Your task to perform on an android device: Go to ESPN.com Image 0: 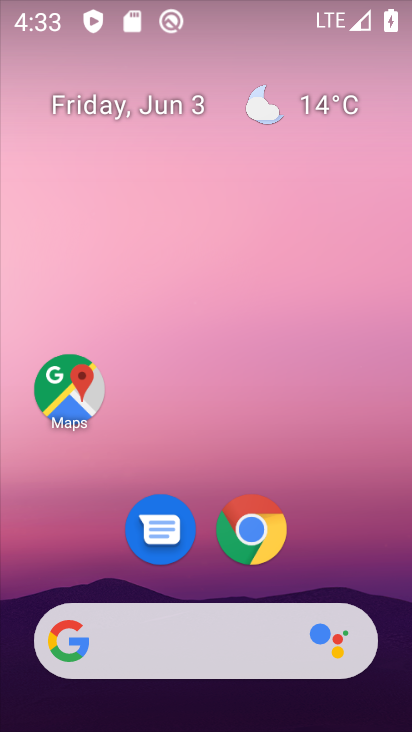
Step 0: press home button
Your task to perform on an android device: Go to ESPN.com Image 1: 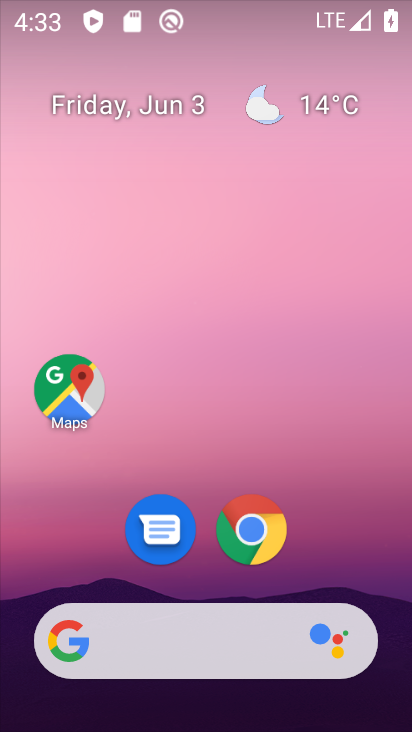
Step 1: click (249, 522)
Your task to perform on an android device: Go to ESPN.com Image 2: 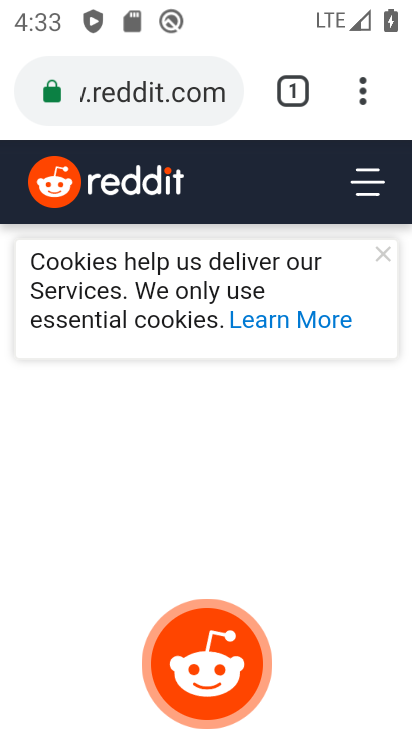
Step 2: click (292, 79)
Your task to perform on an android device: Go to ESPN.com Image 3: 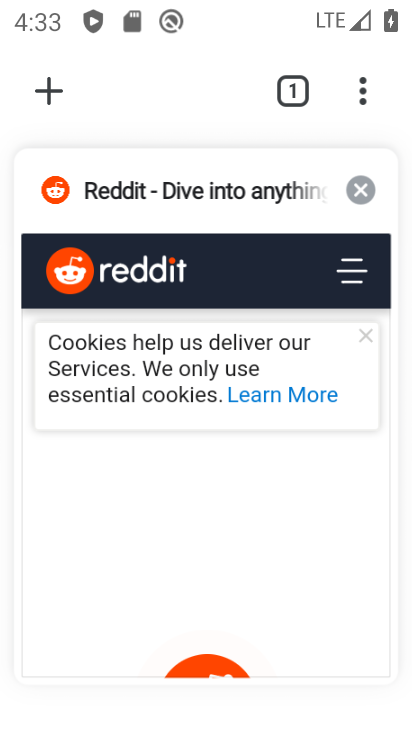
Step 3: click (357, 187)
Your task to perform on an android device: Go to ESPN.com Image 4: 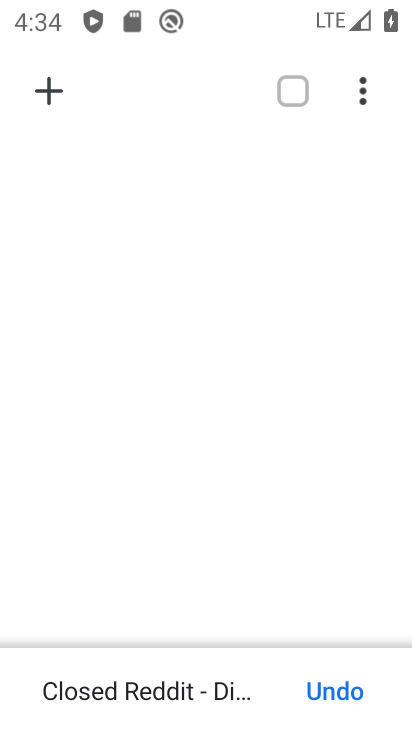
Step 4: click (51, 91)
Your task to perform on an android device: Go to ESPN.com Image 5: 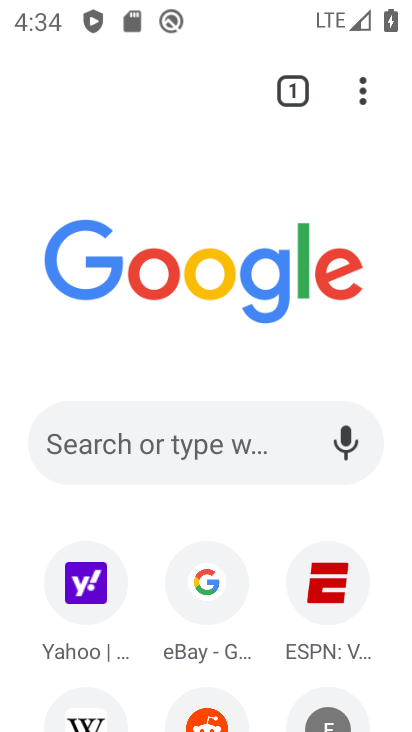
Step 5: click (321, 589)
Your task to perform on an android device: Go to ESPN.com Image 6: 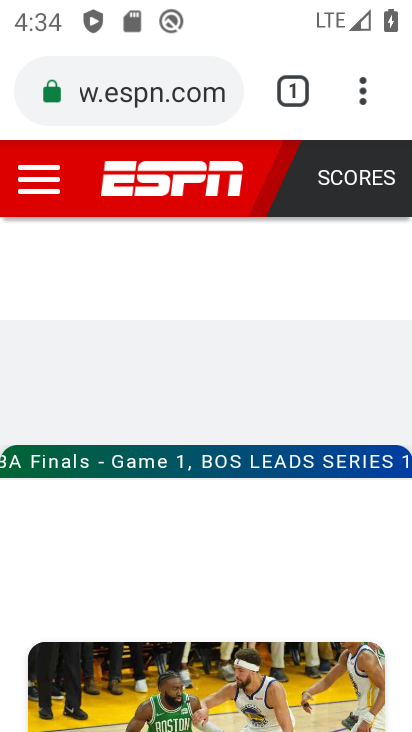
Step 6: drag from (282, 631) to (291, 201)
Your task to perform on an android device: Go to ESPN.com Image 7: 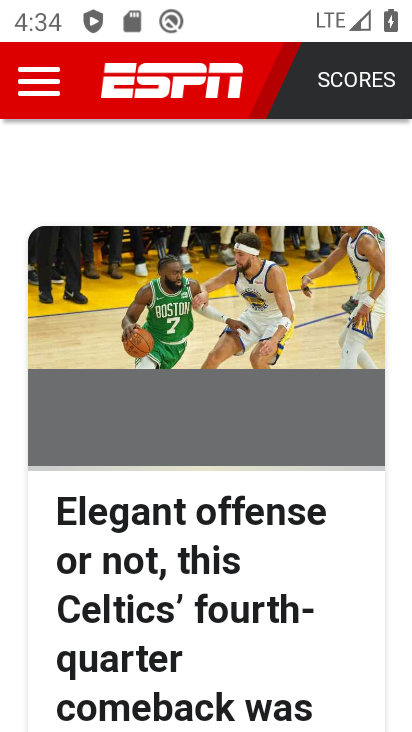
Step 7: drag from (275, 675) to (289, 138)
Your task to perform on an android device: Go to ESPN.com Image 8: 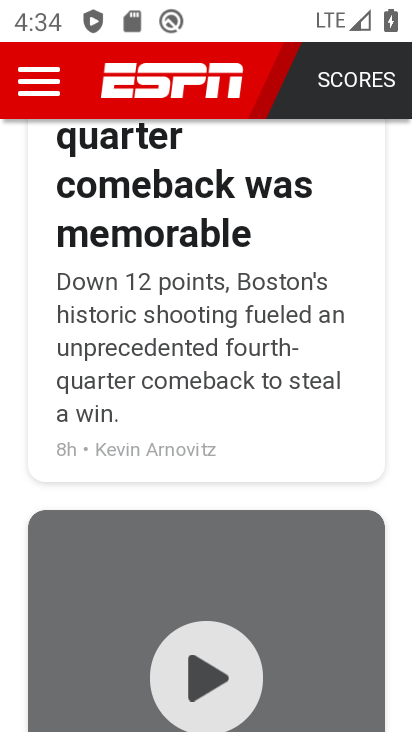
Step 8: drag from (208, 496) to (201, 173)
Your task to perform on an android device: Go to ESPN.com Image 9: 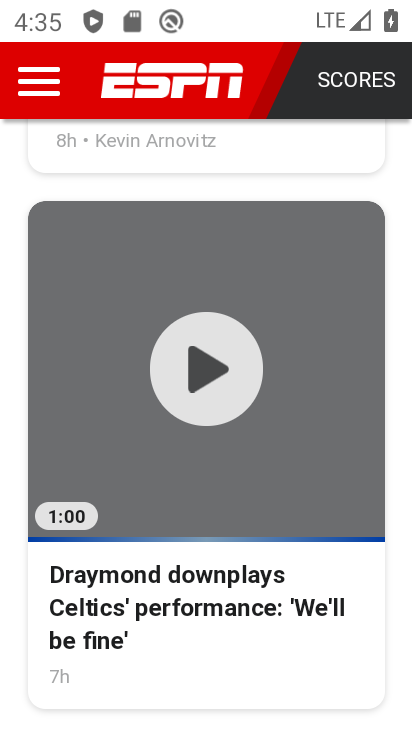
Step 9: press home button
Your task to perform on an android device: Go to ESPN.com Image 10: 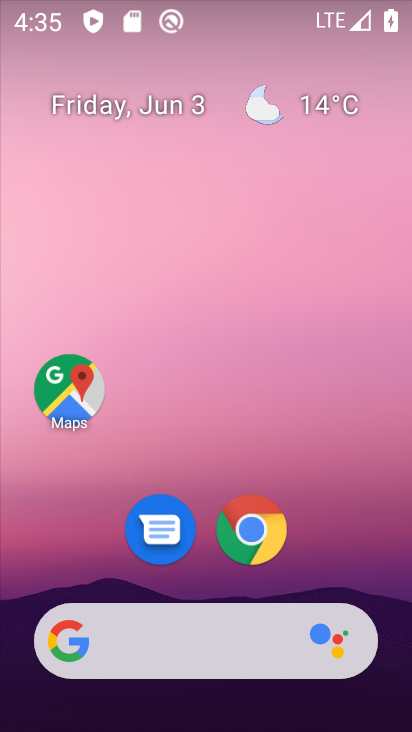
Step 10: click (248, 527)
Your task to perform on an android device: Go to ESPN.com Image 11: 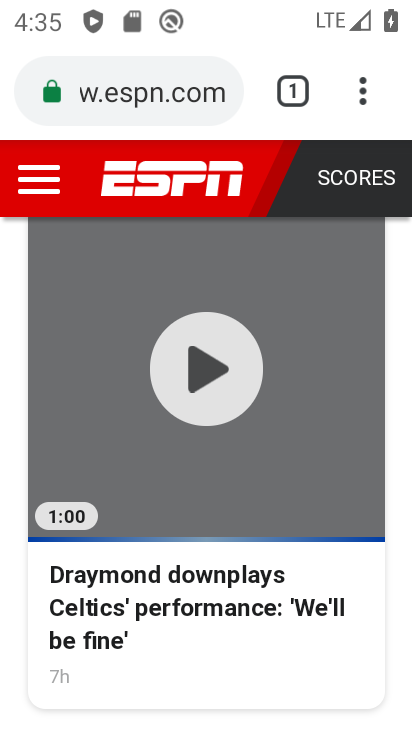
Step 11: task complete